Your task to perform on an android device: toggle location history Image 0: 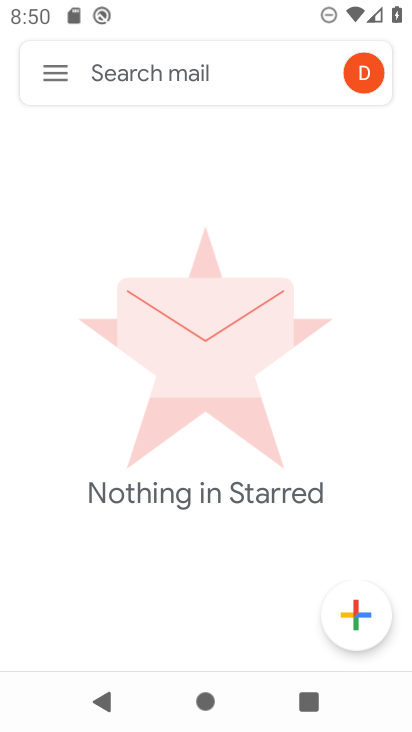
Step 0: press home button
Your task to perform on an android device: toggle location history Image 1: 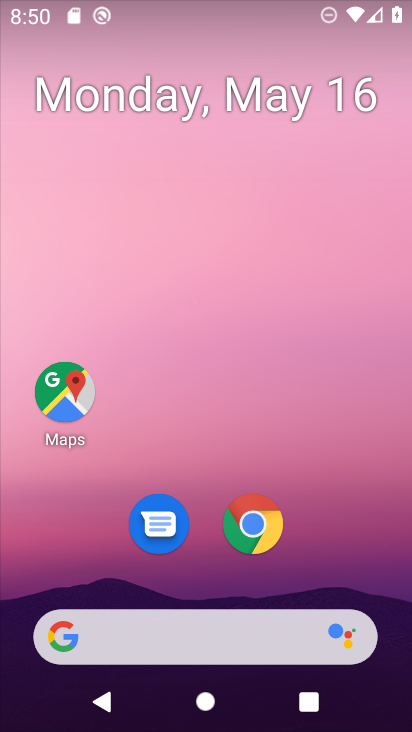
Step 1: drag from (238, 474) to (213, 28)
Your task to perform on an android device: toggle location history Image 2: 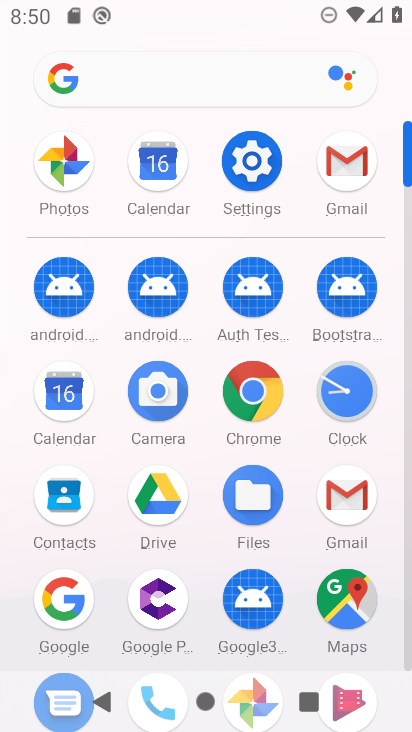
Step 2: click (247, 159)
Your task to perform on an android device: toggle location history Image 3: 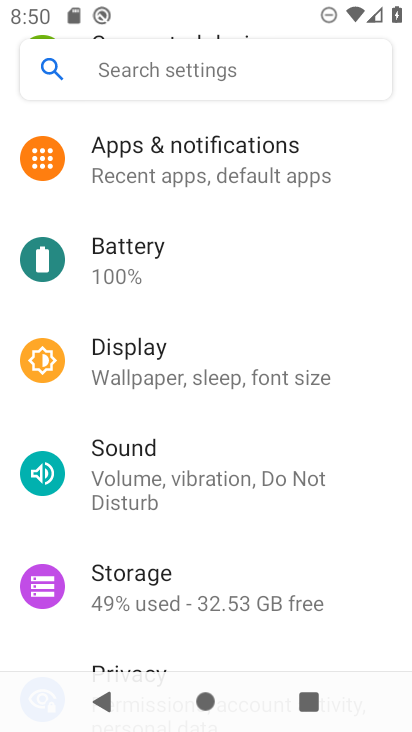
Step 3: drag from (234, 519) to (209, 89)
Your task to perform on an android device: toggle location history Image 4: 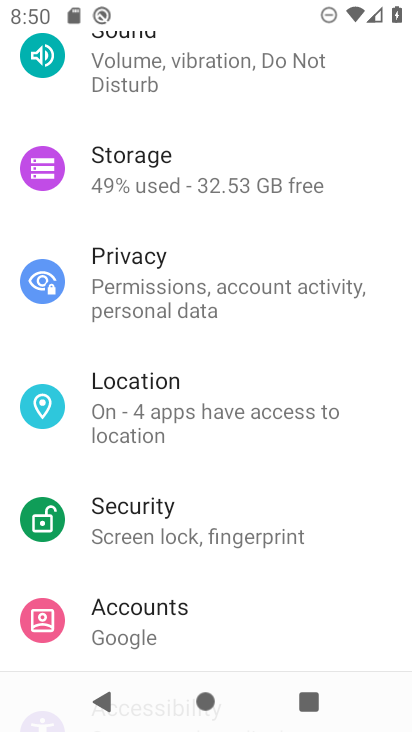
Step 4: click (197, 397)
Your task to perform on an android device: toggle location history Image 5: 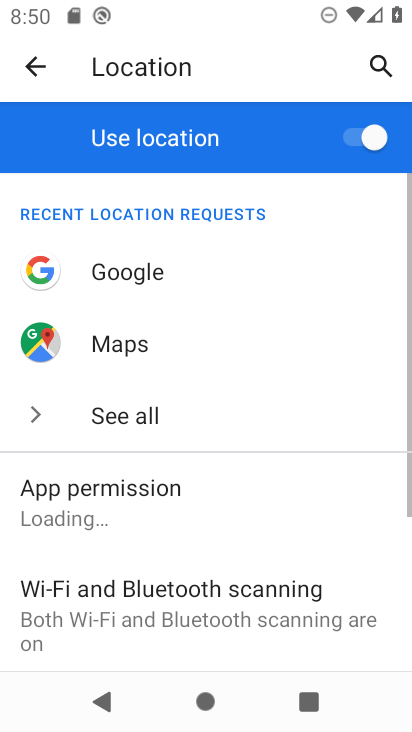
Step 5: drag from (222, 543) to (249, 91)
Your task to perform on an android device: toggle location history Image 6: 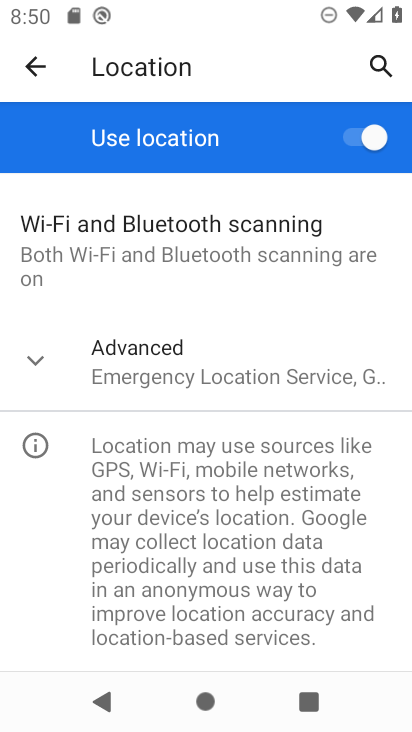
Step 6: click (31, 357)
Your task to perform on an android device: toggle location history Image 7: 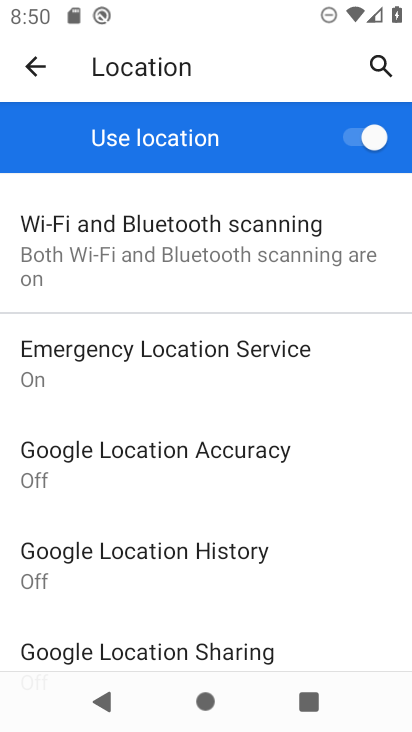
Step 7: click (243, 568)
Your task to perform on an android device: toggle location history Image 8: 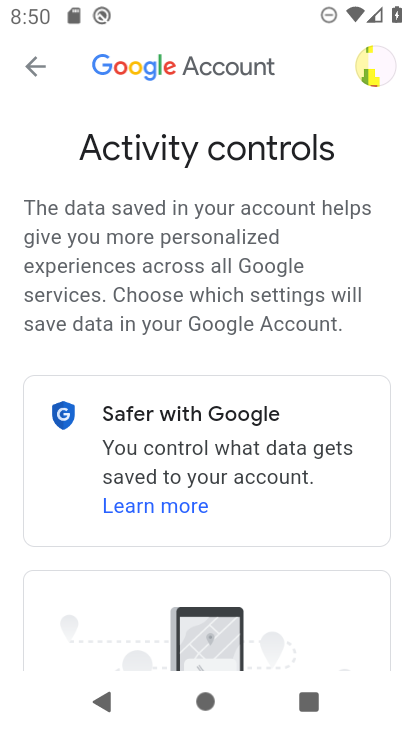
Step 8: drag from (288, 511) to (258, 86)
Your task to perform on an android device: toggle location history Image 9: 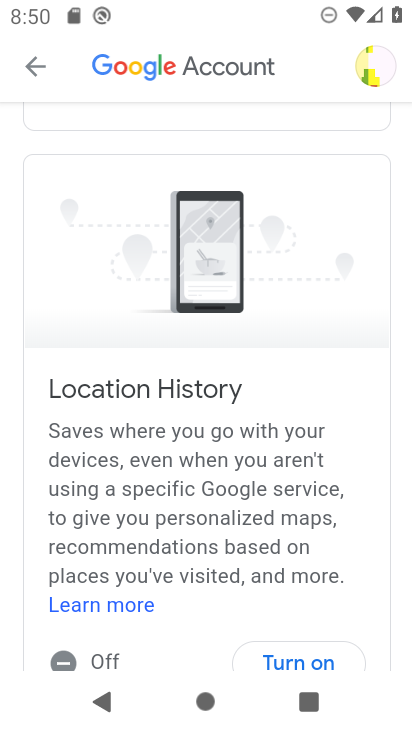
Step 9: drag from (254, 439) to (256, 292)
Your task to perform on an android device: toggle location history Image 10: 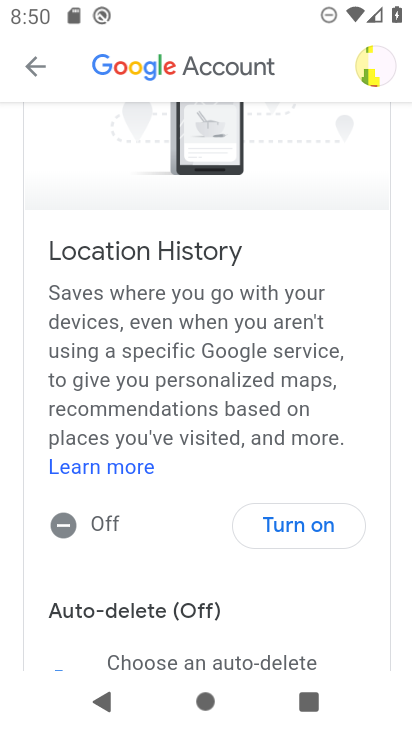
Step 10: click (293, 525)
Your task to perform on an android device: toggle location history Image 11: 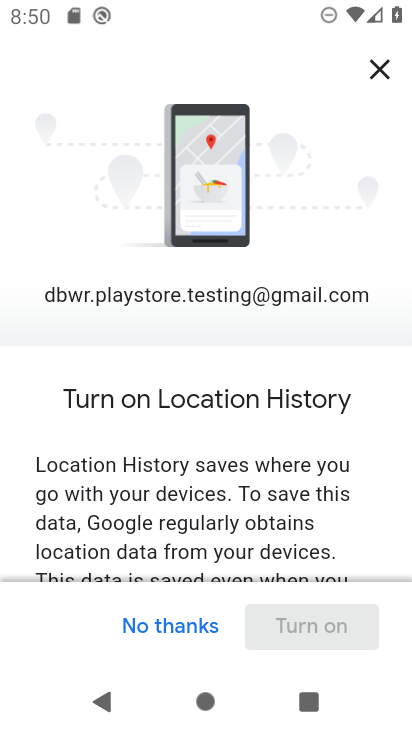
Step 11: drag from (307, 527) to (285, 341)
Your task to perform on an android device: toggle location history Image 12: 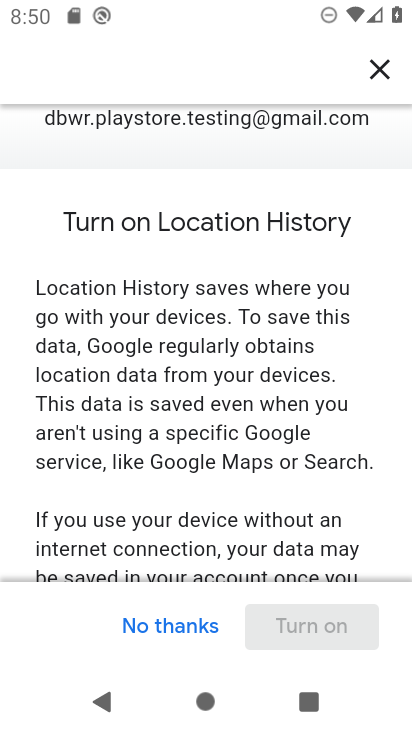
Step 12: drag from (263, 497) to (266, 194)
Your task to perform on an android device: toggle location history Image 13: 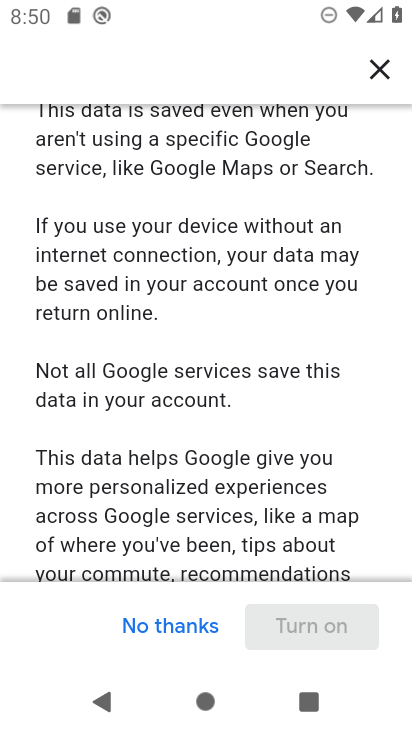
Step 13: drag from (281, 470) to (300, 186)
Your task to perform on an android device: toggle location history Image 14: 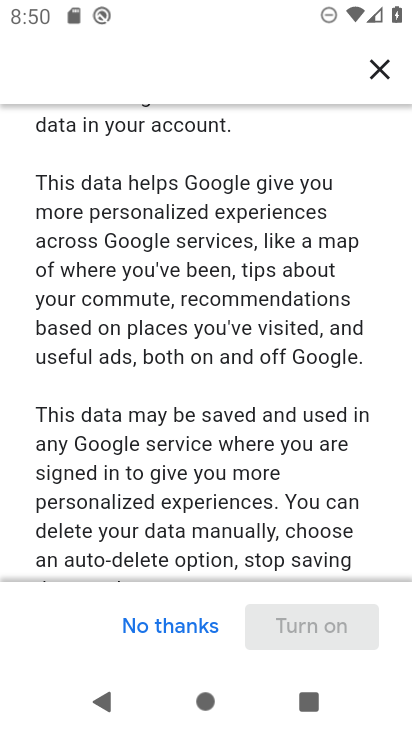
Step 14: drag from (276, 474) to (286, 197)
Your task to perform on an android device: toggle location history Image 15: 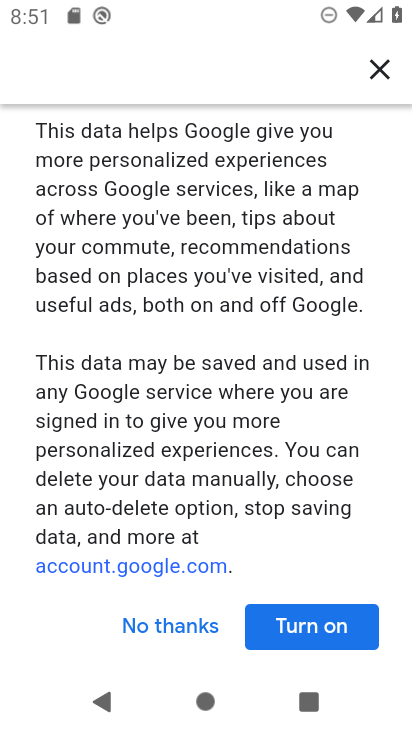
Step 15: click (305, 628)
Your task to perform on an android device: toggle location history Image 16: 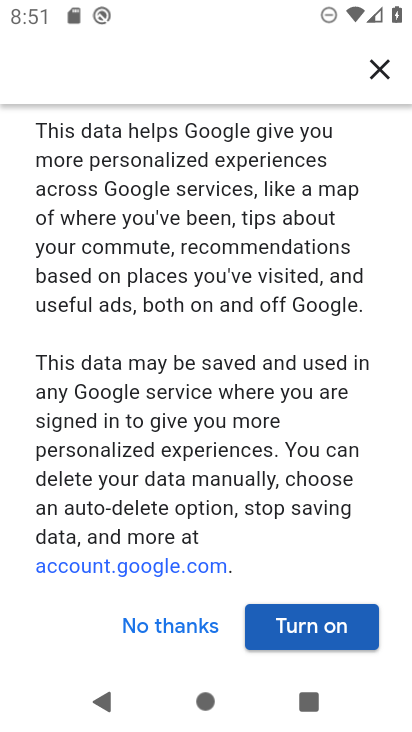
Step 16: click (305, 625)
Your task to perform on an android device: toggle location history Image 17: 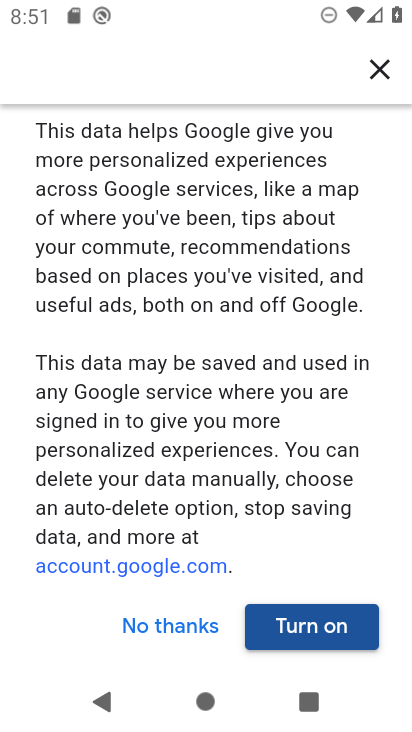
Step 17: click (335, 619)
Your task to perform on an android device: toggle location history Image 18: 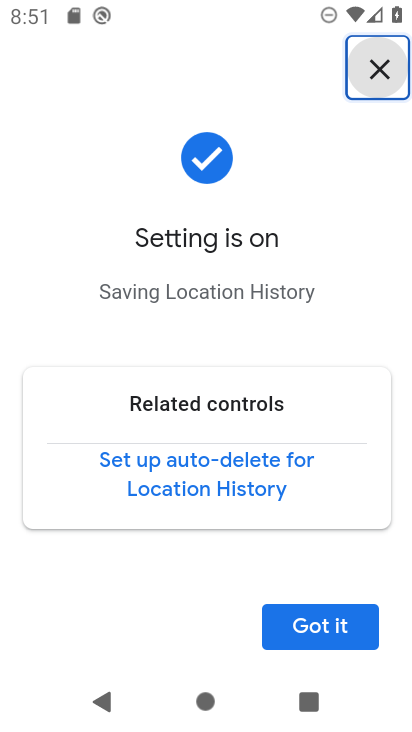
Step 18: click (336, 619)
Your task to perform on an android device: toggle location history Image 19: 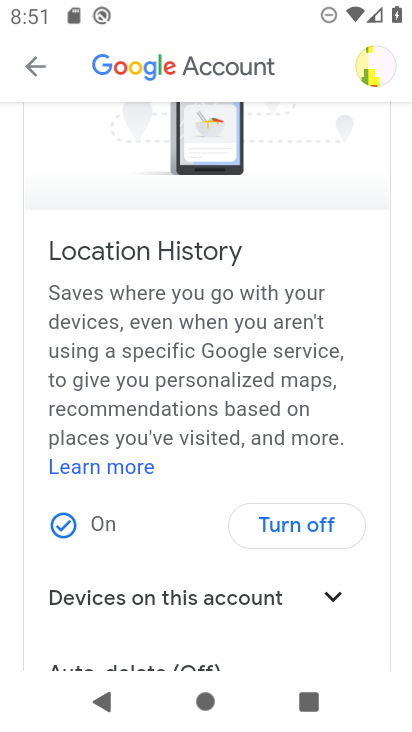
Step 19: task complete